Your task to perform on an android device: Open Wikipedia Image 0: 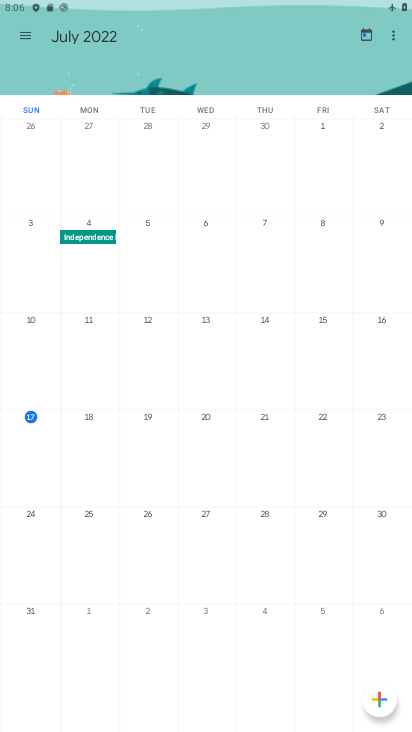
Step 0: press home button
Your task to perform on an android device: Open Wikipedia Image 1: 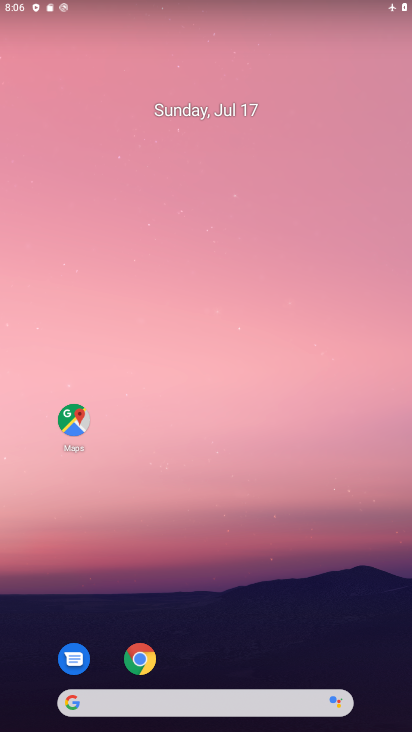
Step 1: click (141, 661)
Your task to perform on an android device: Open Wikipedia Image 2: 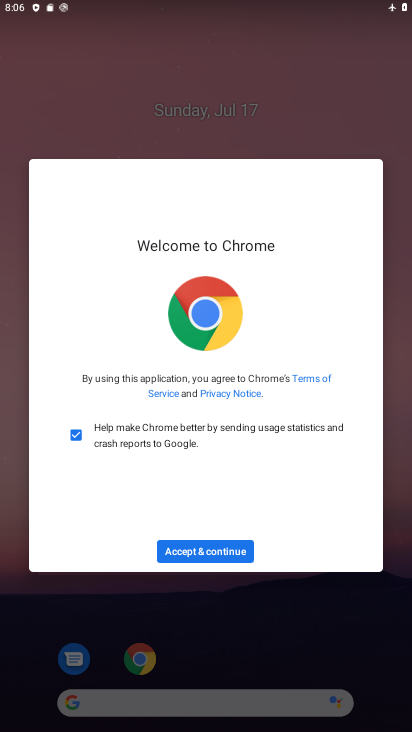
Step 2: click (196, 548)
Your task to perform on an android device: Open Wikipedia Image 3: 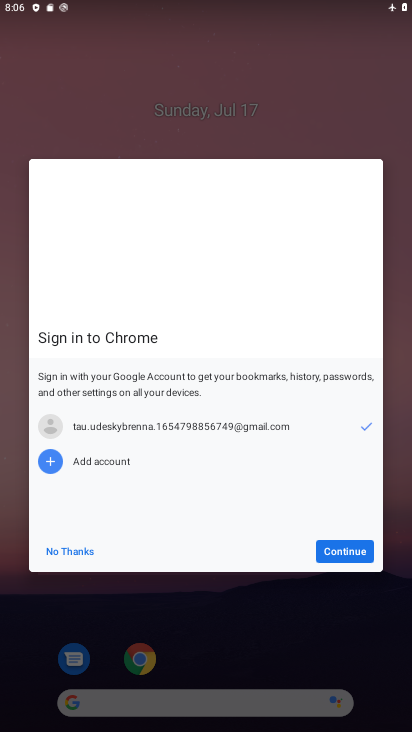
Step 3: click (337, 545)
Your task to perform on an android device: Open Wikipedia Image 4: 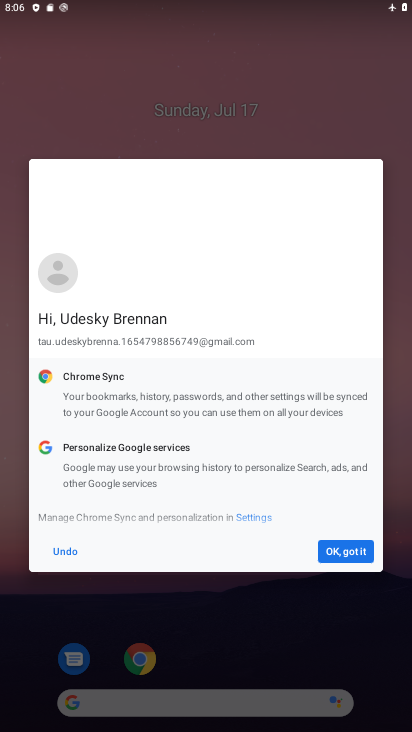
Step 4: click (341, 553)
Your task to perform on an android device: Open Wikipedia Image 5: 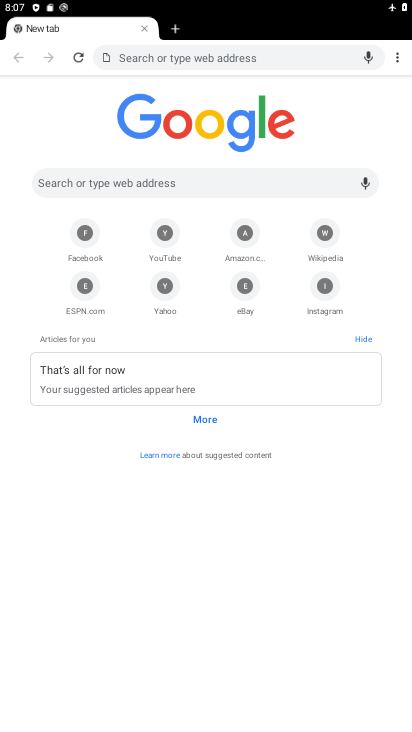
Step 5: click (325, 235)
Your task to perform on an android device: Open Wikipedia Image 6: 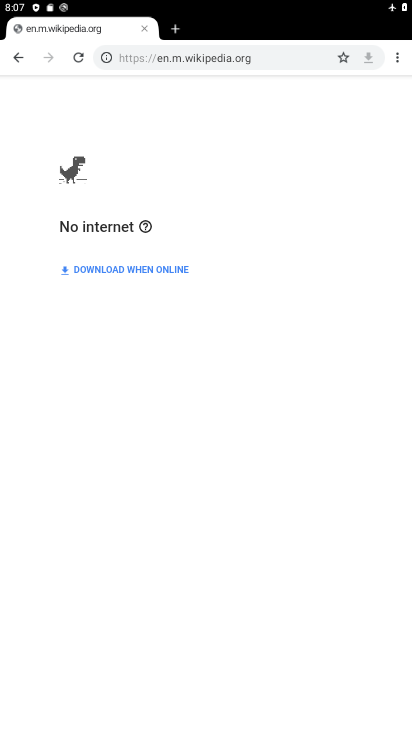
Step 6: task complete